Your task to perform on an android device: Open privacy settings Image 0: 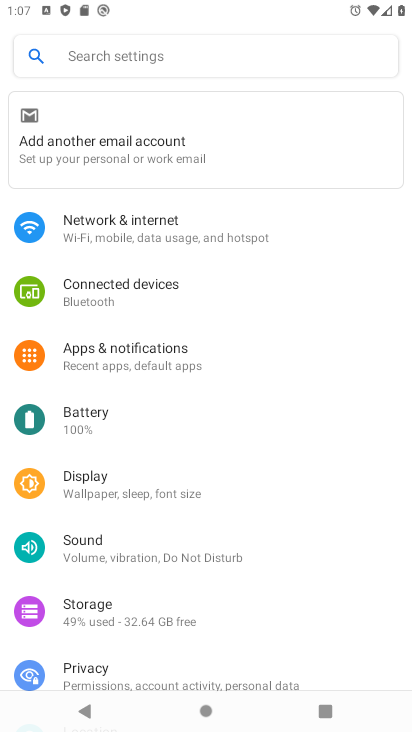
Step 0: press home button
Your task to perform on an android device: Open privacy settings Image 1: 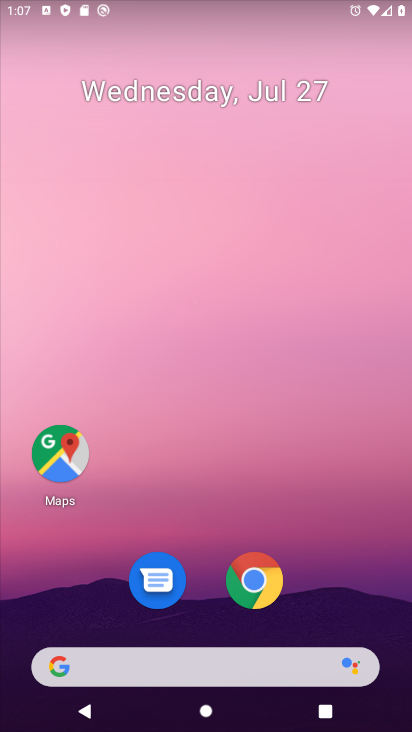
Step 1: drag from (256, 692) to (133, 93)
Your task to perform on an android device: Open privacy settings Image 2: 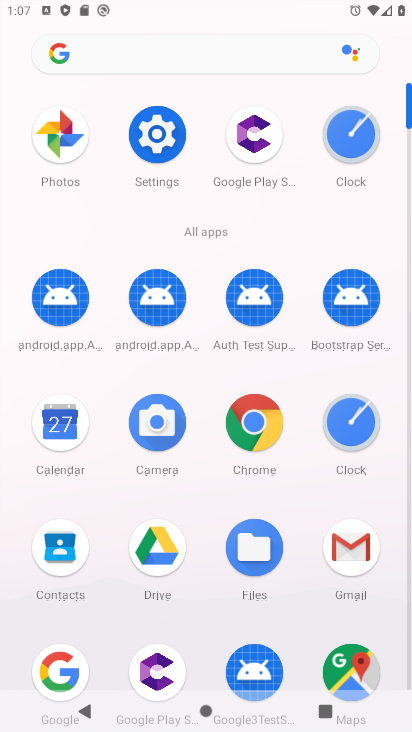
Step 2: drag from (204, 533) to (184, 276)
Your task to perform on an android device: Open privacy settings Image 3: 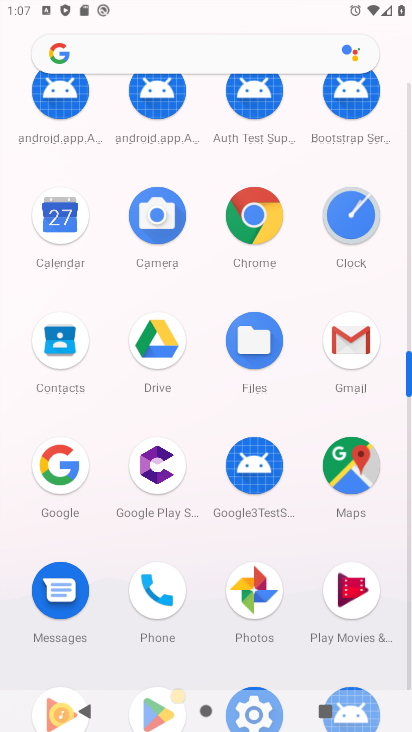
Step 3: drag from (201, 551) to (195, 391)
Your task to perform on an android device: Open privacy settings Image 4: 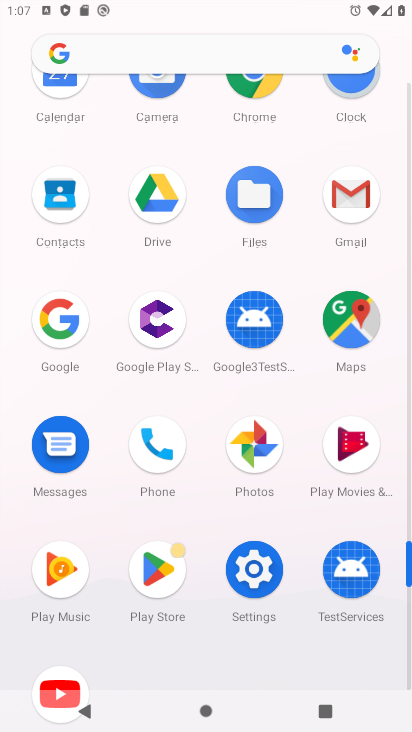
Step 4: click (246, 585)
Your task to perform on an android device: Open privacy settings Image 5: 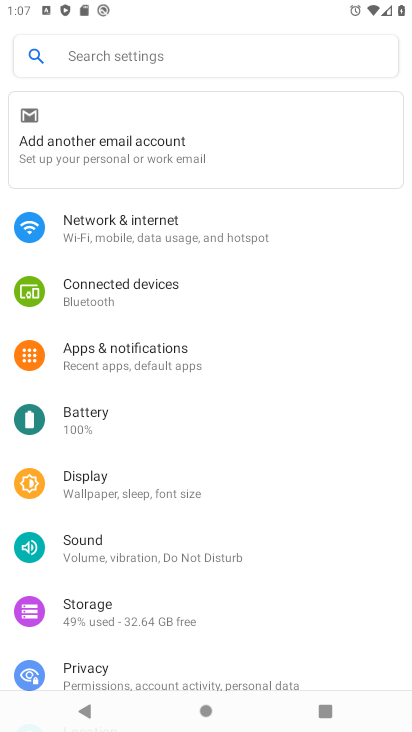
Step 5: click (129, 679)
Your task to perform on an android device: Open privacy settings Image 6: 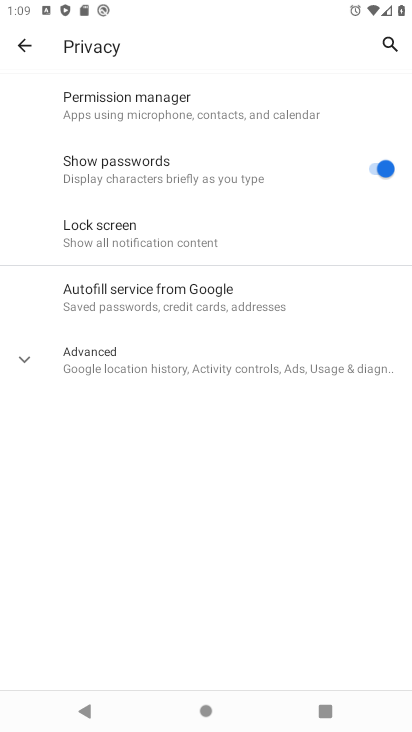
Step 6: task complete